Your task to perform on an android device: Show me the alarms in the clock app Image 0: 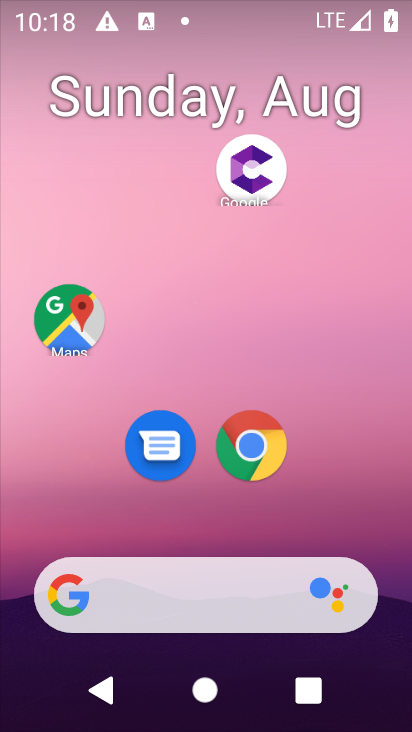
Step 0: press home button
Your task to perform on an android device: Show me the alarms in the clock app Image 1: 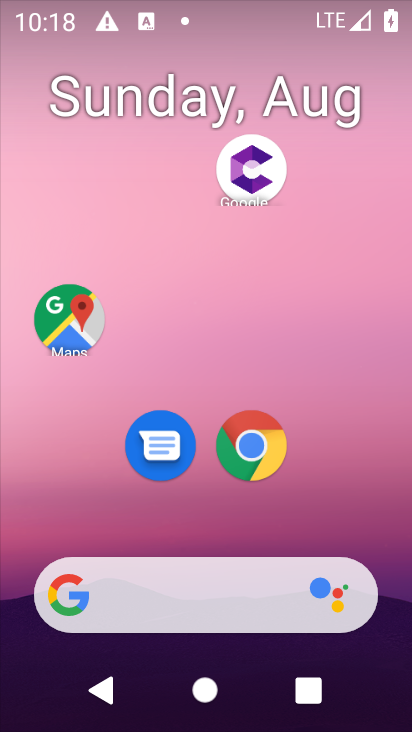
Step 1: drag from (206, 528) to (235, 37)
Your task to perform on an android device: Show me the alarms in the clock app Image 2: 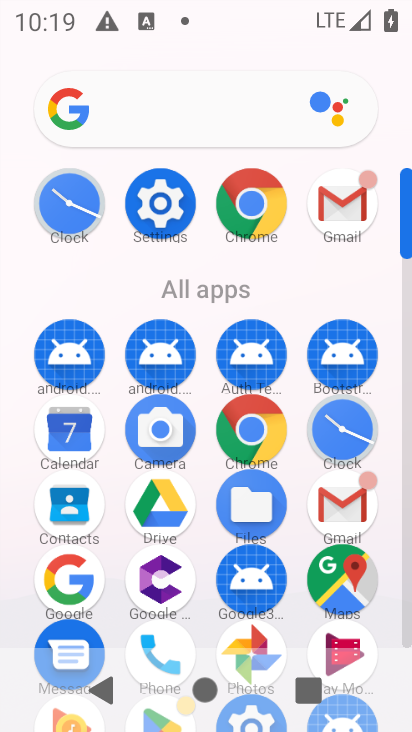
Step 2: click (342, 418)
Your task to perform on an android device: Show me the alarms in the clock app Image 3: 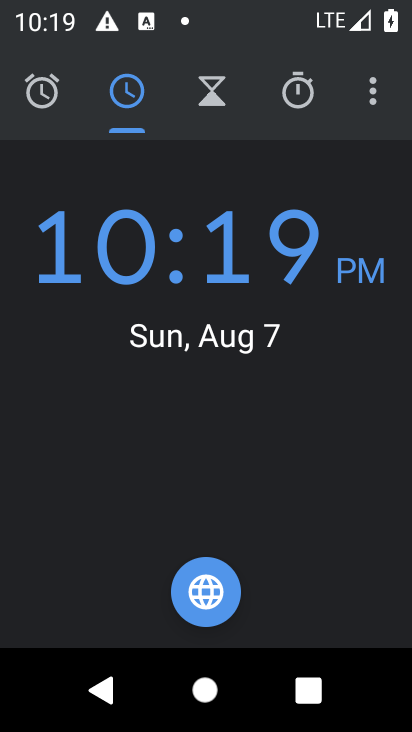
Step 3: click (39, 93)
Your task to perform on an android device: Show me the alarms in the clock app Image 4: 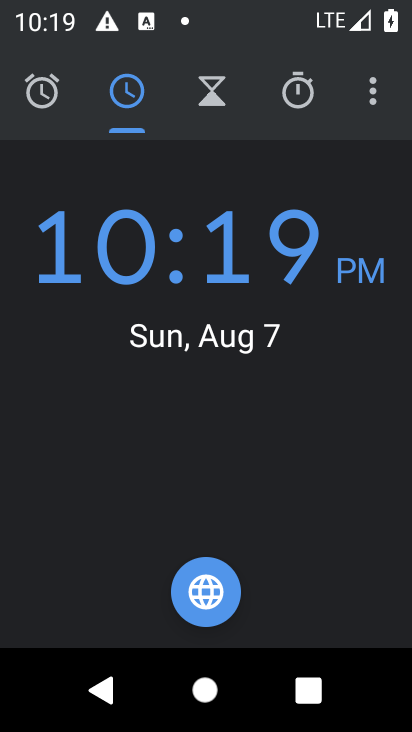
Step 4: click (35, 103)
Your task to perform on an android device: Show me the alarms in the clock app Image 5: 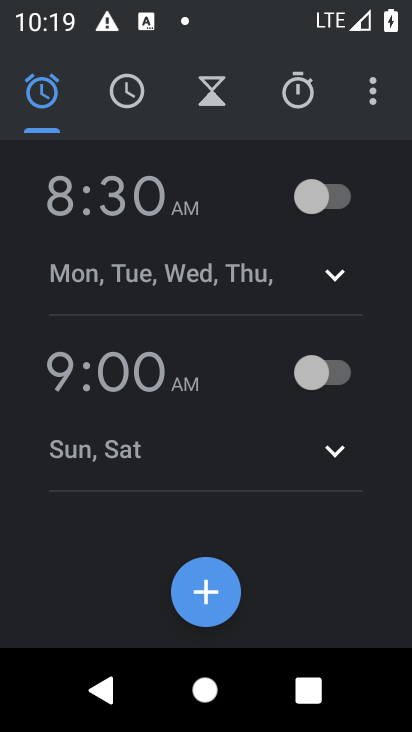
Step 5: task complete